Your task to perform on an android device: Open Google Chrome and click the shortcut for Amazon.com Image 0: 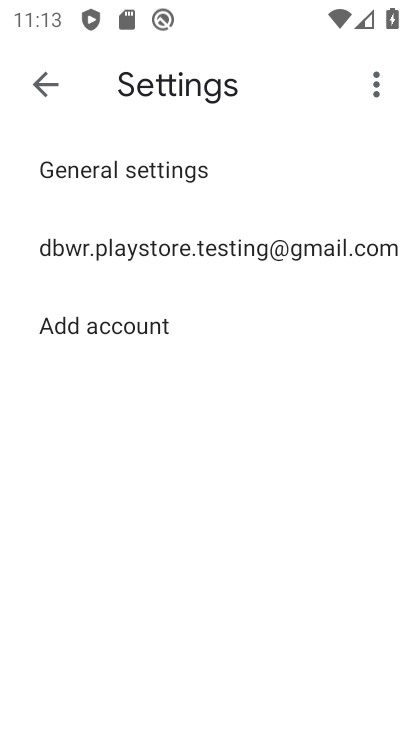
Step 0: press home button
Your task to perform on an android device: Open Google Chrome and click the shortcut for Amazon.com Image 1: 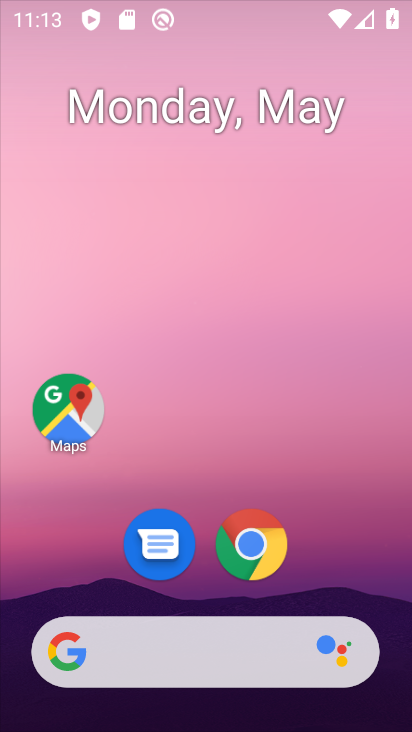
Step 1: drag from (375, 589) to (315, 162)
Your task to perform on an android device: Open Google Chrome and click the shortcut for Amazon.com Image 2: 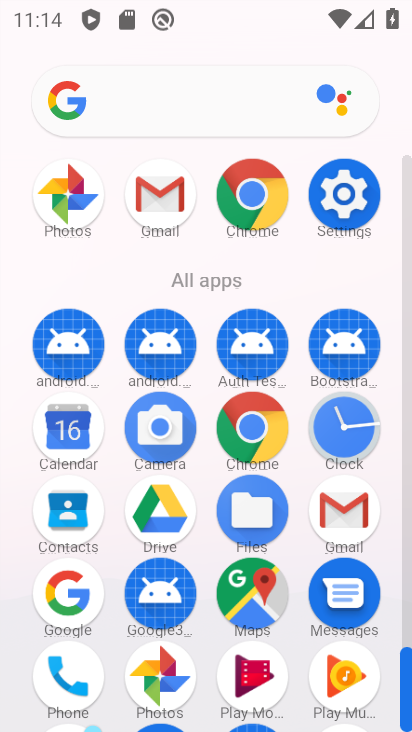
Step 2: click (267, 187)
Your task to perform on an android device: Open Google Chrome and click the shortcut for Amazon.com Image 3: 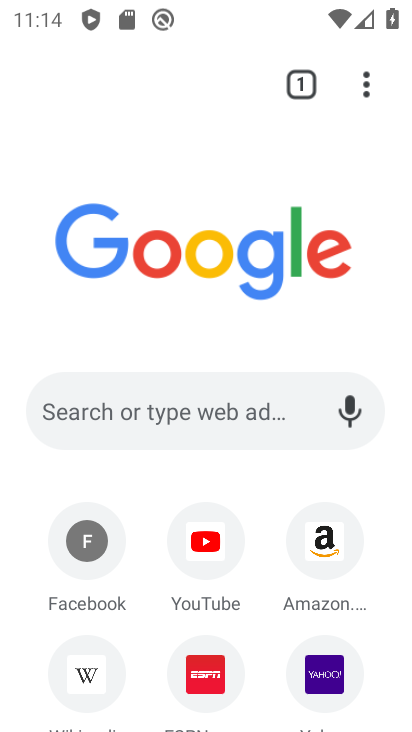
Step 3: drag from (246, 483) to (232, 258)
Your task to perform on an android device: Open Google Chrome and click the shortcut for Amazon.com Image 4: 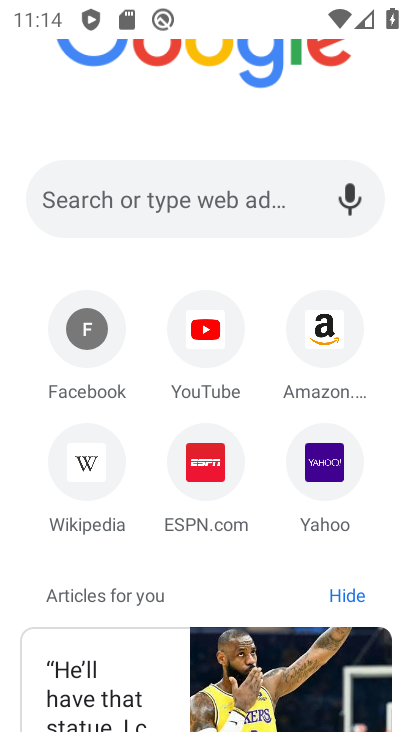
Step 4: drag from (231, 258) to (255, 516)
Your task to perform on an android device: Open Google Chrome and click the shortcut for Amazon.com Image 5: 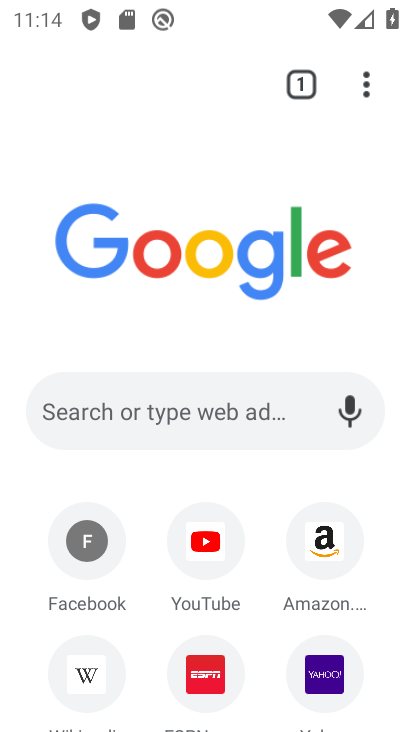
Step 5: click (319, 558)
Your task to perform on an android device: Open Google Chrome and click the shortcut for Amazon.com Image 6: 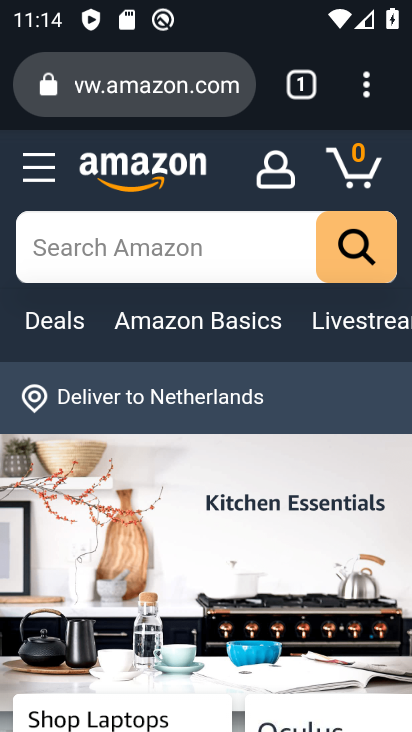
Step 6: task complete